Your task to perform on an android device: turn on bluetooth scan Image 0: 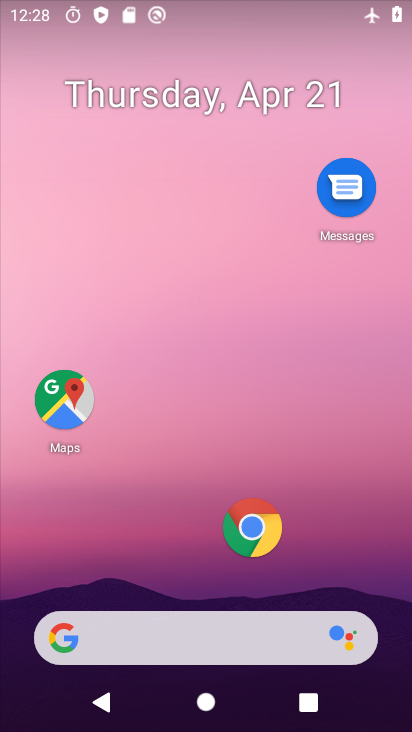
Step 0: drag from (348, 553) to (362, 68)
Your task to perform on an android device: turn on bluetooth scan Image 1: 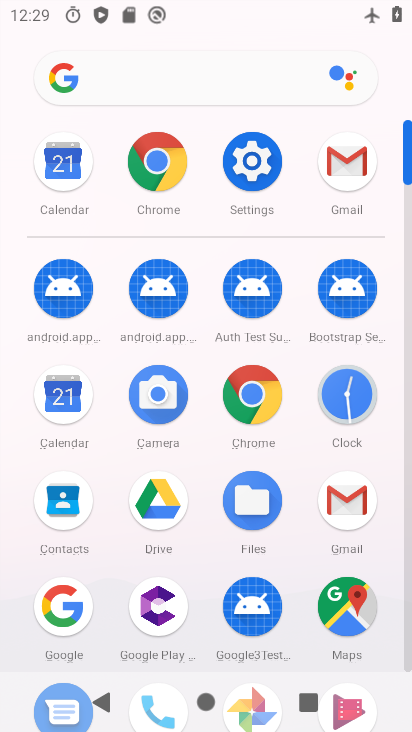
Step 1: click (254, 165)
Your task to perform on an android device: turn on bluetooth scan Image 2: 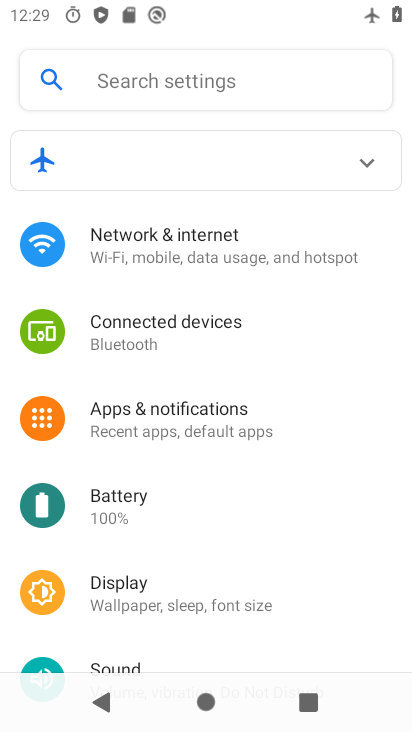
Step 2: drag from (242, 421) to (303, 204)
Your task to perform on an android device: turn on bluetooth scan Image 3: 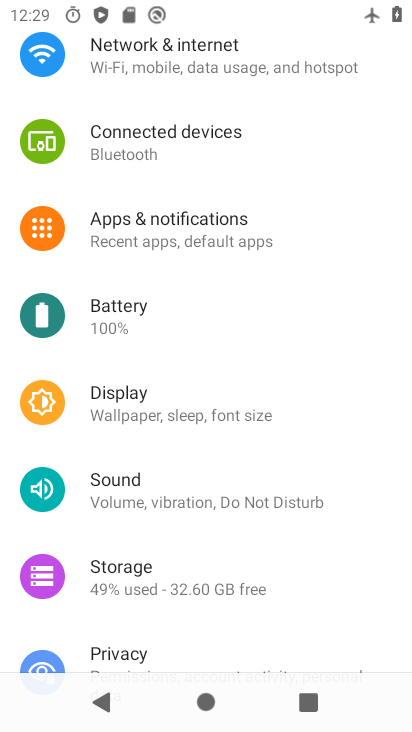
Step 3: drag from (235, 521) to (276, 389)
Your task to perform on an android device: turn on bluetooth scan Image 4: 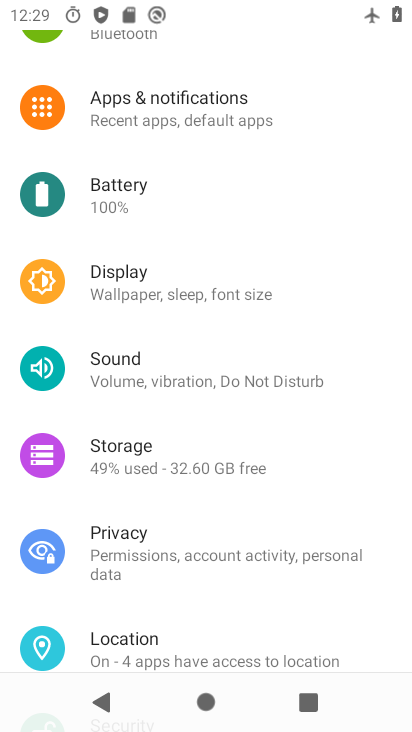
Step 4: drag from (273, 505) to (302, 298)
Your task to perform on an android device: turn on bluetooth scan Image 5: 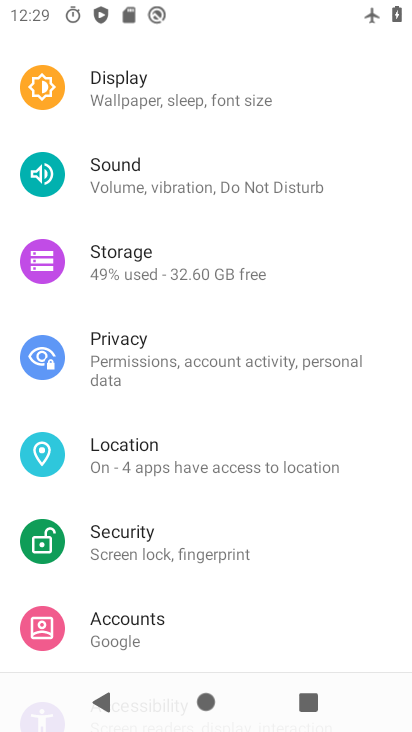
Step 5: click (251, 460)
Your task to perform on an android device: turn on bluetooth scan Image 6: 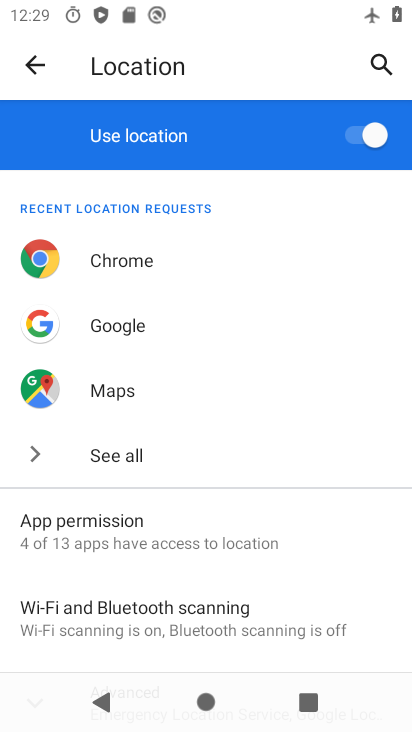
Step 6: drag from (263, 546) to (319, 313)
Your task to perform on an android device: turn on bluetooth scan Image 7: 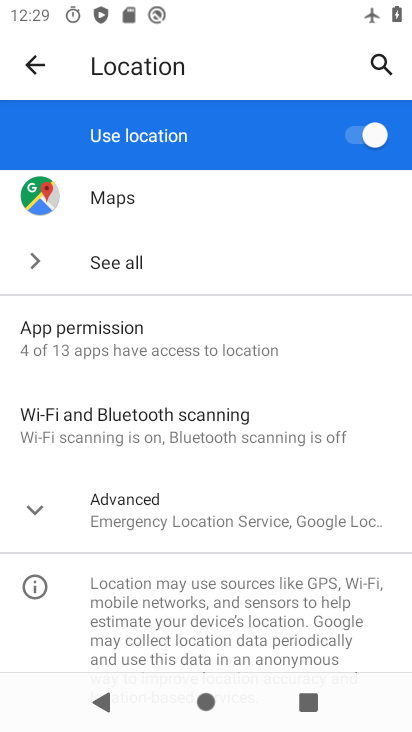
Step 7: click (303, 425)
Your task to perform on an android device: turn on bluetooth scan Image 8: 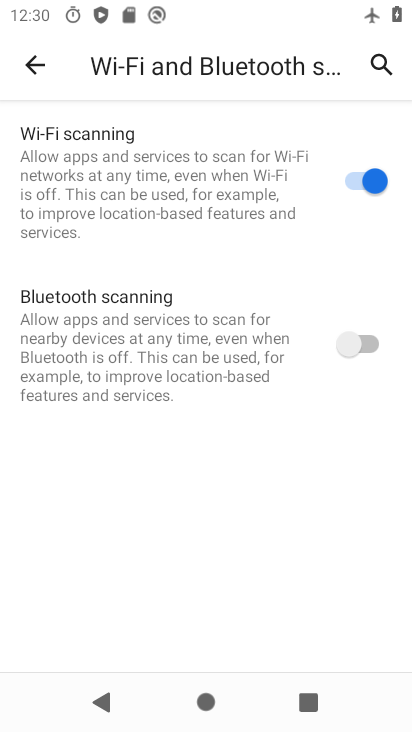
Step 8: click (366, 356)
Your task to perform on an android device: turn on bluetooth scan Image 9: 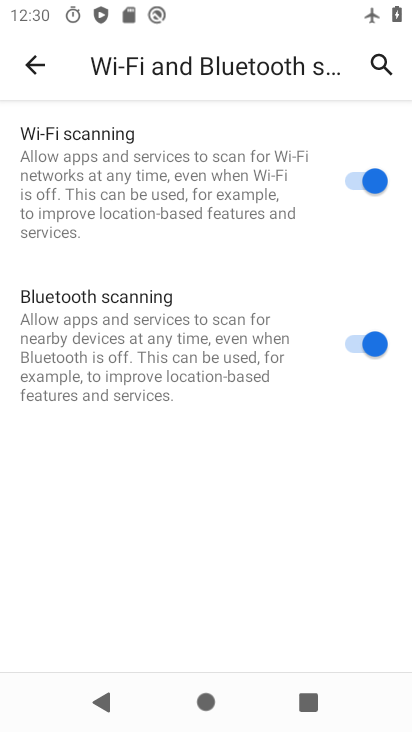
Step 9: task complete